Your task to perform on an android device: add a contact Image 0: 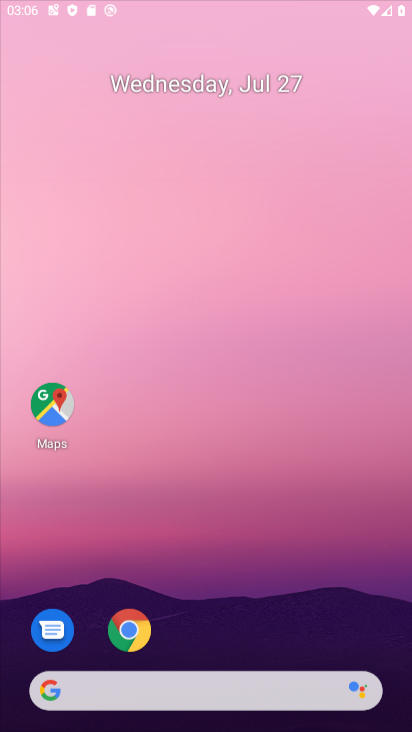
Step 0: drag from (250, 670) to (167, 209)
Your task to perform on an android device: add a contact Image 1: 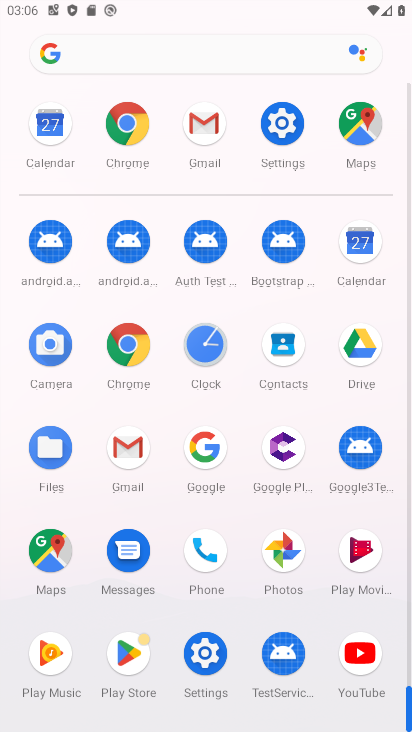
Step 1: click (290, 356)
Your task to perform on an android device: add a contact Image 2: 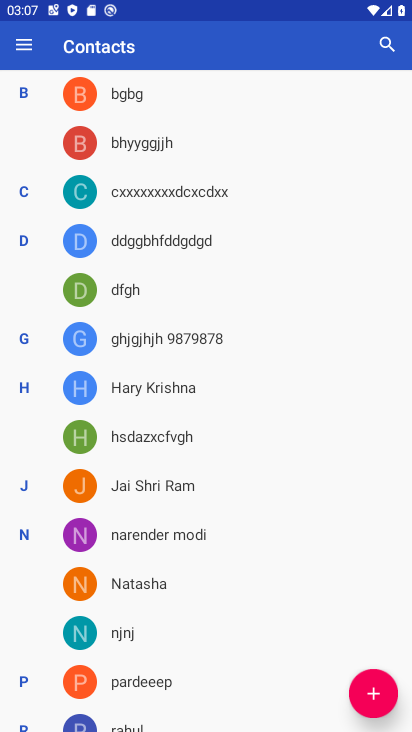
Step 2: click (357, 672)
Your task to perform on an android device: add a contact Image 3: 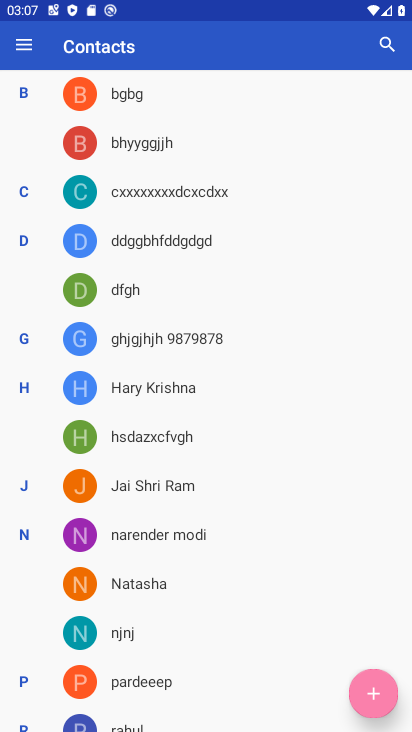
Step 3: click (364, 672)
Your task to perform on an android device: add a contact Image 4: 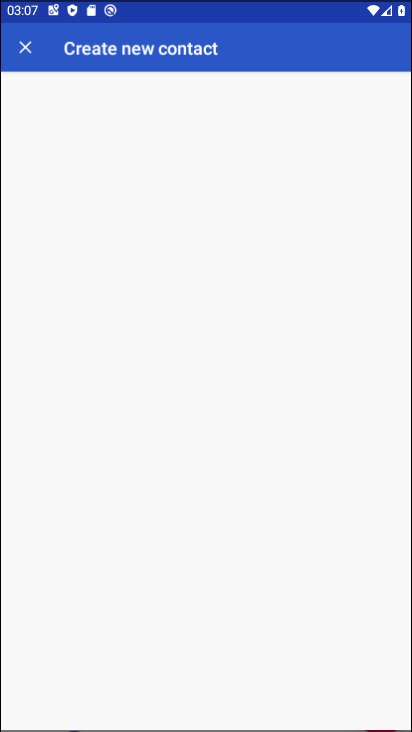
Step 4: click (374, 671)
Your task to perform on an android device: add a contact Image 5: 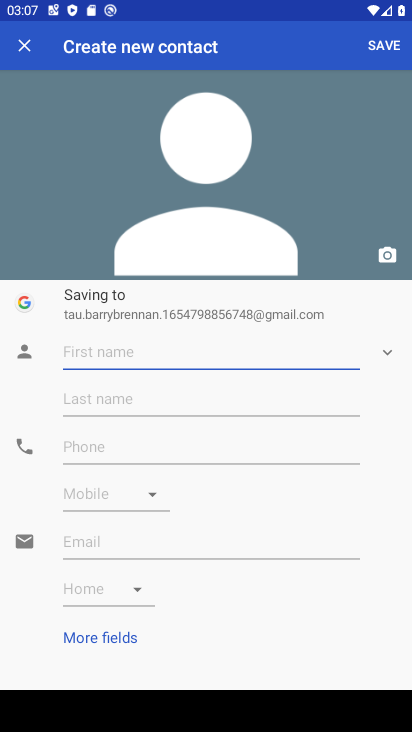
Step 5: type "hgdvcbchj"
Your task to perform on an android device: add a contact Image 6: 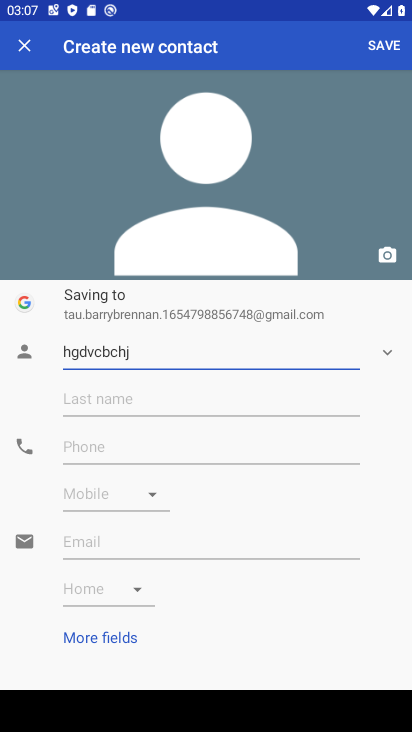
Step 6: click (75, 454)
Your task to perform on an android device: add a contact Image 7: 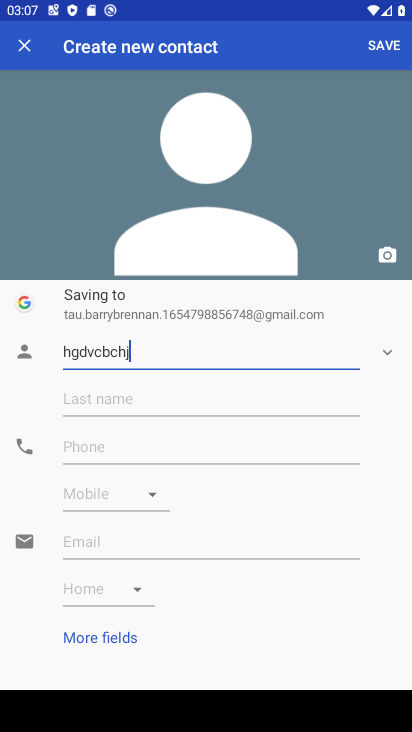
Step 7: click (75, 454)
Your task to perform on an android device: add a contact Image 8: 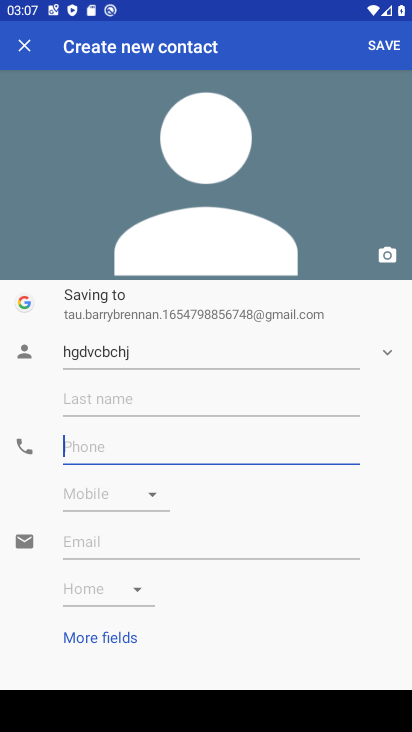
Step 8: click (75, 454)
Your task to perform on an android device: add a contact Image 9: 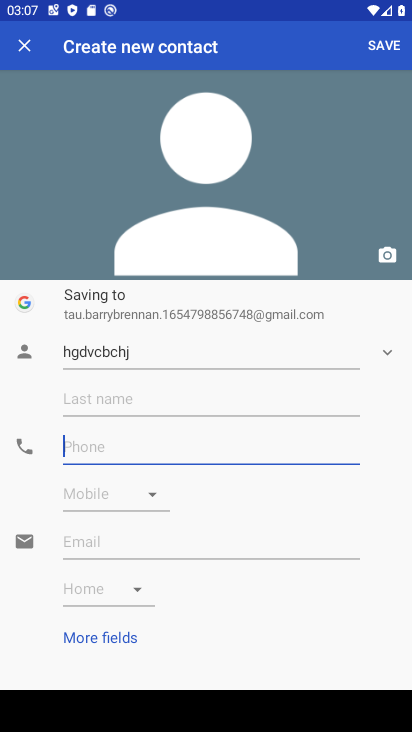
Step 9: click (75, 454)
Your task to perform on an android device: add a contact Image 10: 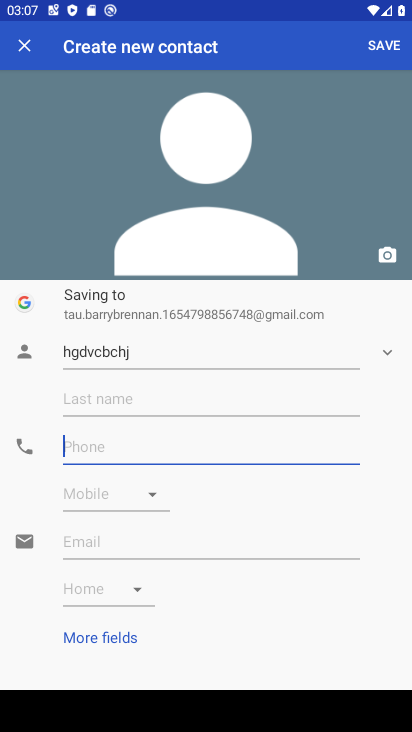
Step 10: type "7r7874748974897893"
Your task to perform on an android device: add a contact Image 11: 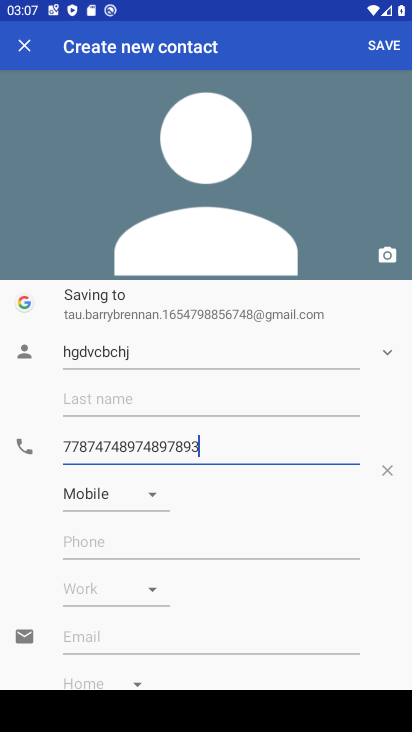
Step 11: click (381, 60)
Your task to perform on an android device: add a contact Image 12: 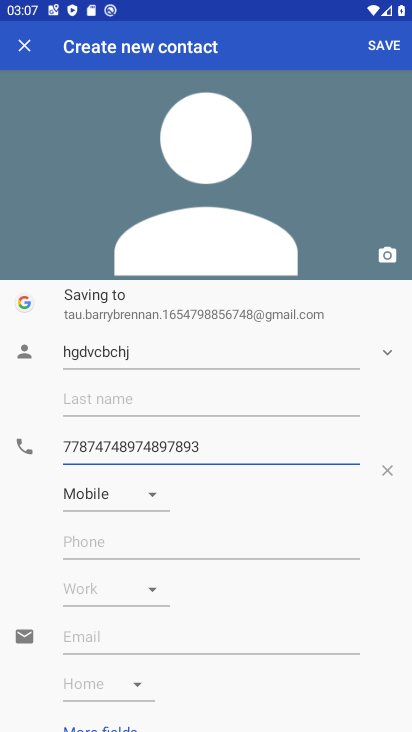
Step 12: click (381, 60)
Your task to perform on an android device: add a contact Image 13: 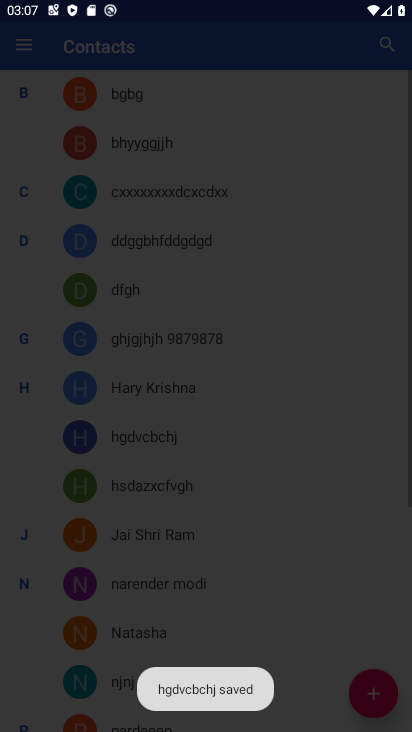
Step 13: click (383, 46)
Your task to perform on an android device: add a contact Image 14: 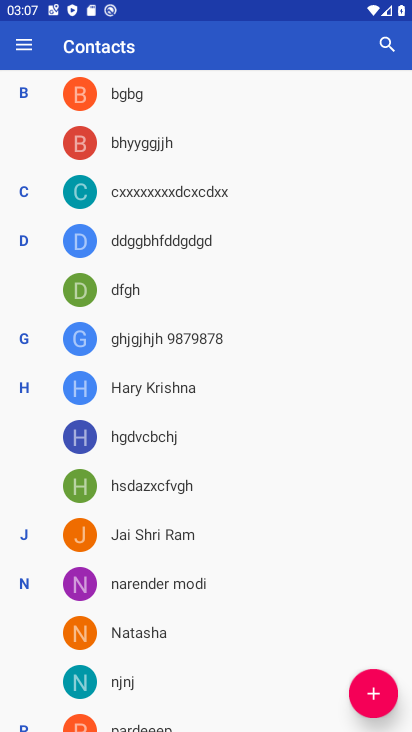
Step 14: click (370, 688)
Your task to perform on an android device: add a contact Image 15: 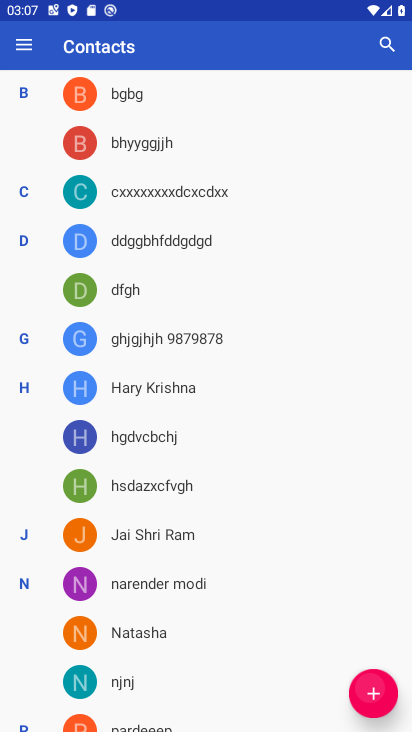
Step 15: click (371, 696)
Your task to perform on an android device: add a contact Image 16: 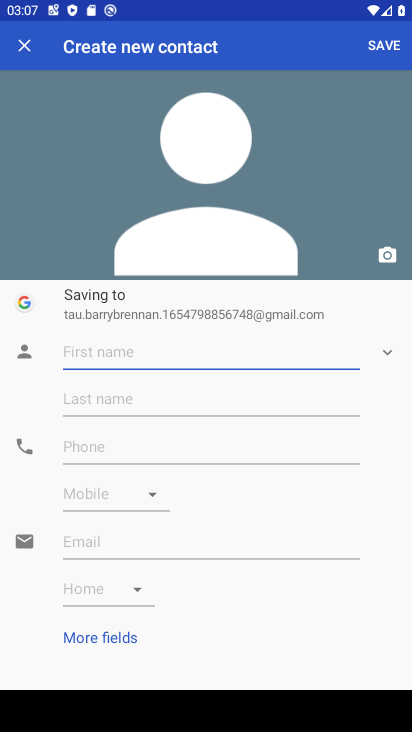
Step 16: type "ffgkjhkjkj"
Your task to perform on an android device: add a contact Image 17: 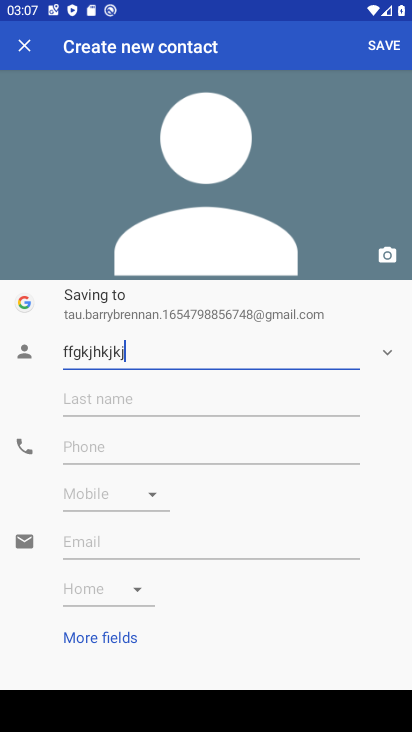
Step 17: click (96, 456)
Your task to perform on an android device: add a contact Image 18: 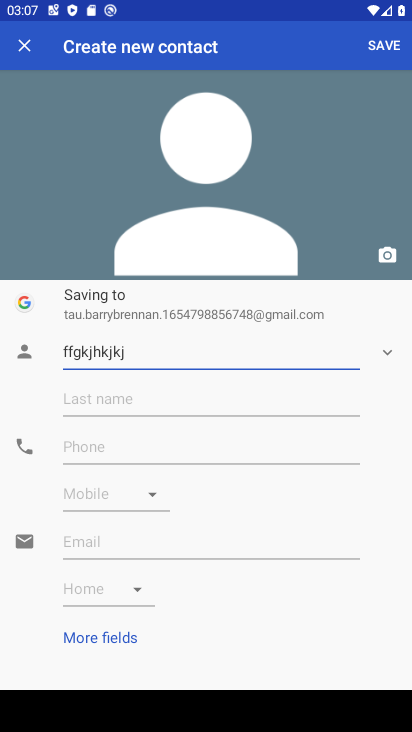
Step 18: click (96, 456)
Your task to perform on an android device: add a contact Image 19: 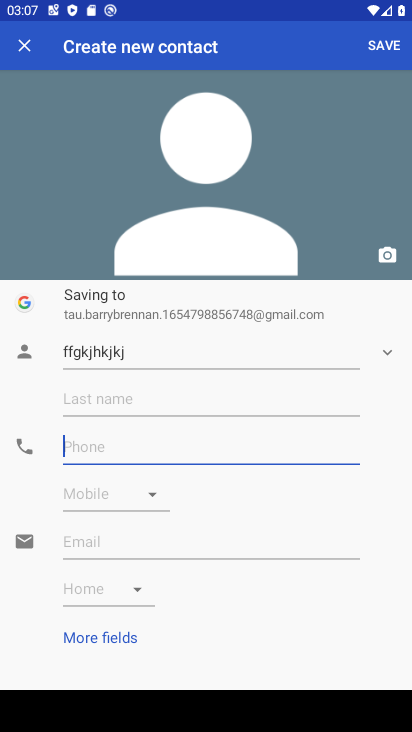
Step 19: click (96, 456)
Your task to perform on an android device: add a contact Image 20: 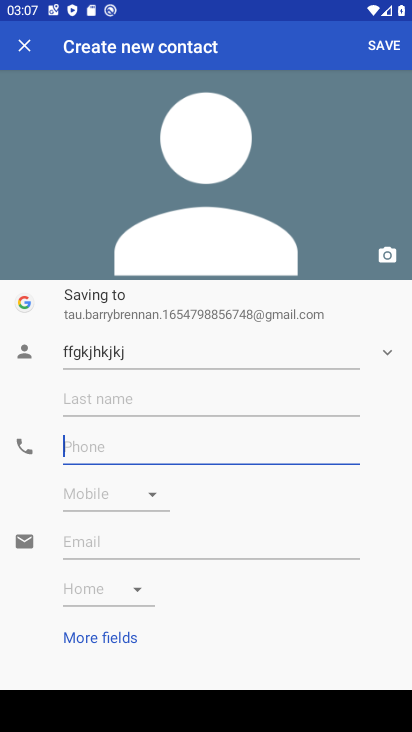
Step 20: type "988789978678"
Your task to perform on an android device: add a contact Image 21: 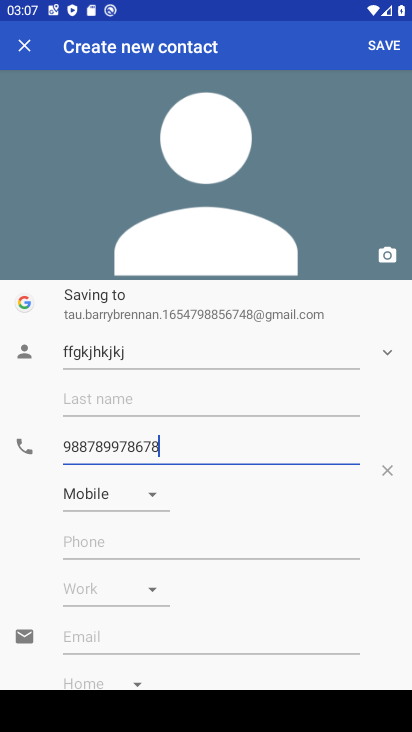
Step 21: click (385, 49)
Your task to perform on an android device: add a contact Image 22: 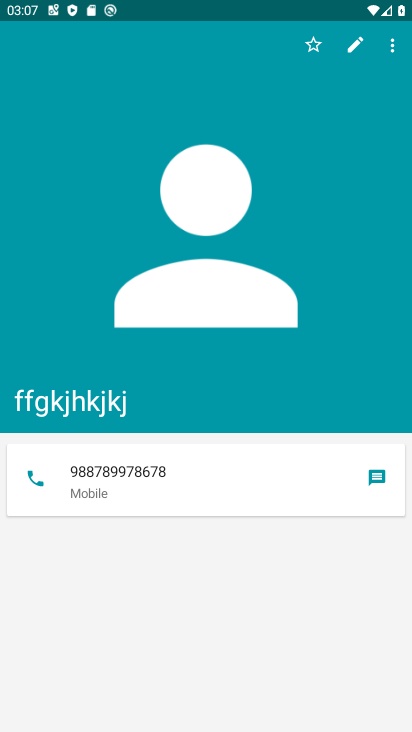
Step 22: task complete